Your task to perform on an android device: Go to Reddit.com Image 0: 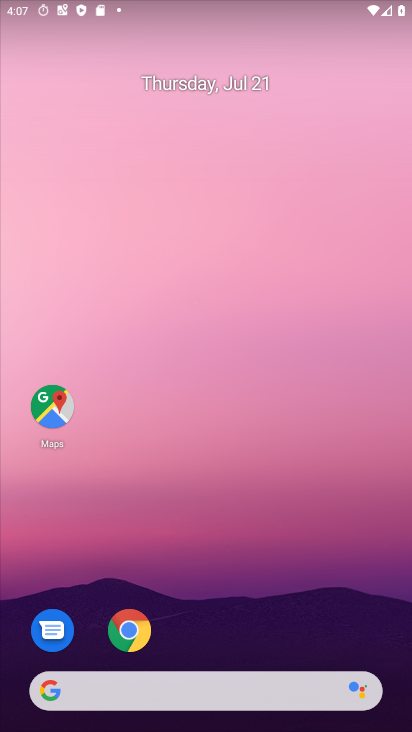
Step 0: click (131, 631)
Your task to perform on an android device: Go to Reddit.com Image 1: 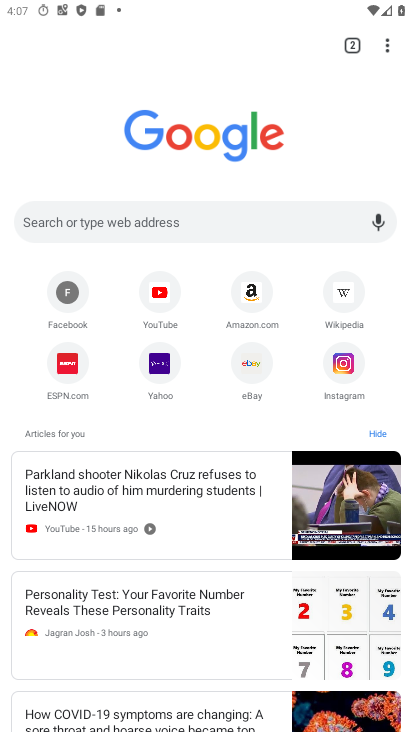
Step 1: click (214, 213)
Your task to perform on an android device: Go to Reddit.com Image 2: 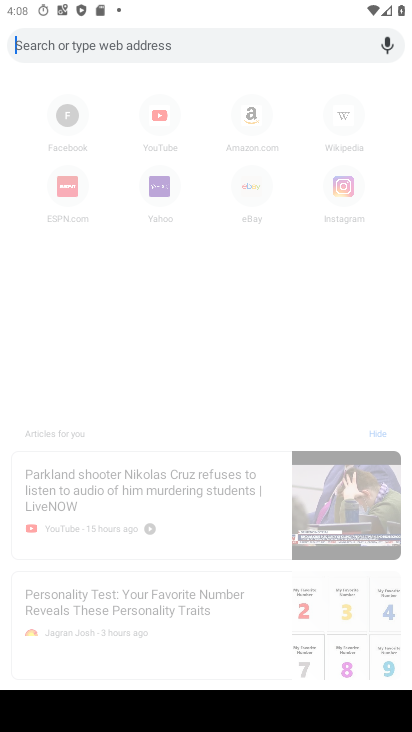
Step 2: type "Reddit.com"
Your task to perform on an android device: Go to Reddit.com Image 3: 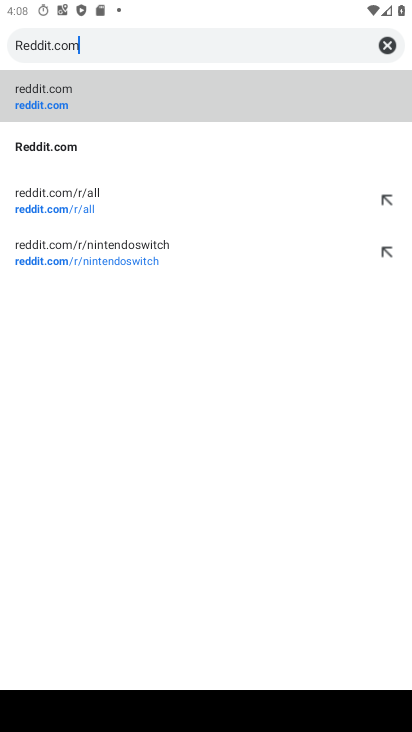
Step 3: click (57, 142)
Your task to perform on an android device: Go to Reddit.com Image 4: 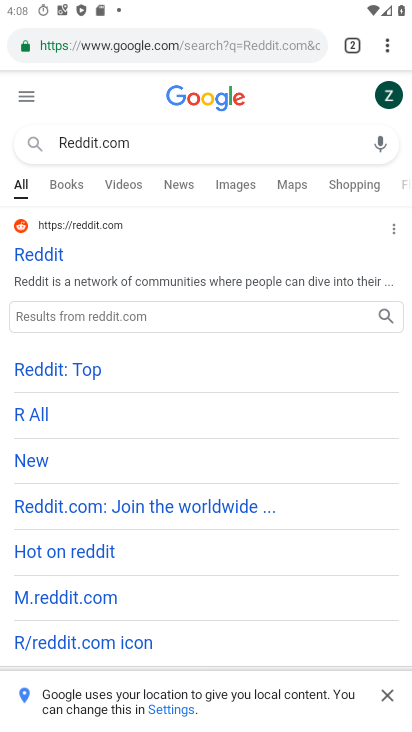
Step 4: click (44, 255)
Your task to perform on an android device: Go to Reddit.com Image 5: 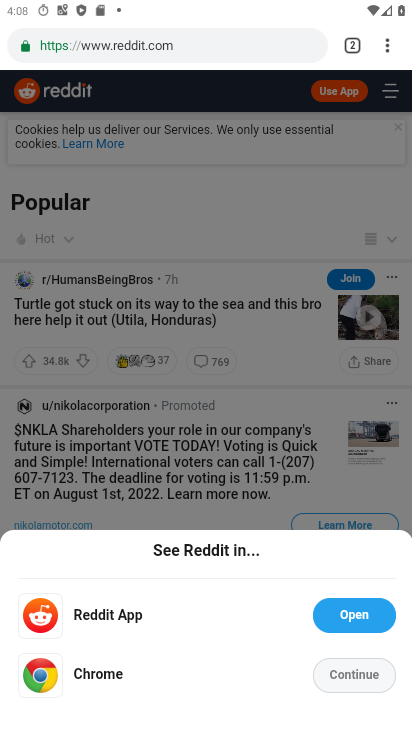
Step 5: click (359, 676)
Your task to perform on an android device: Go to Reddit.com Image 6: 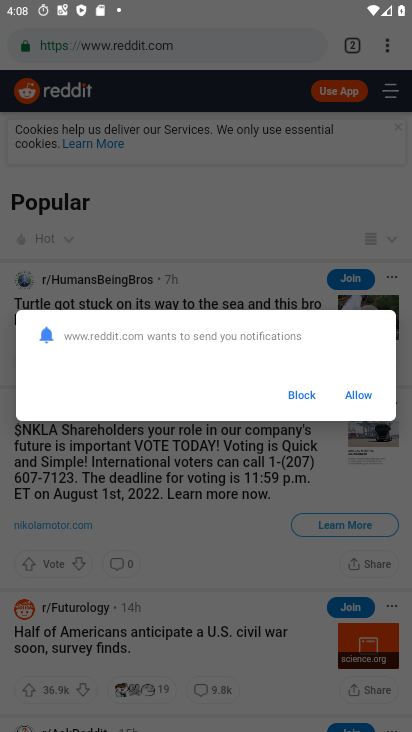
Step 6: click (358, 394)
Your task to perform on an android device: Go to Reddit.com Image 7: 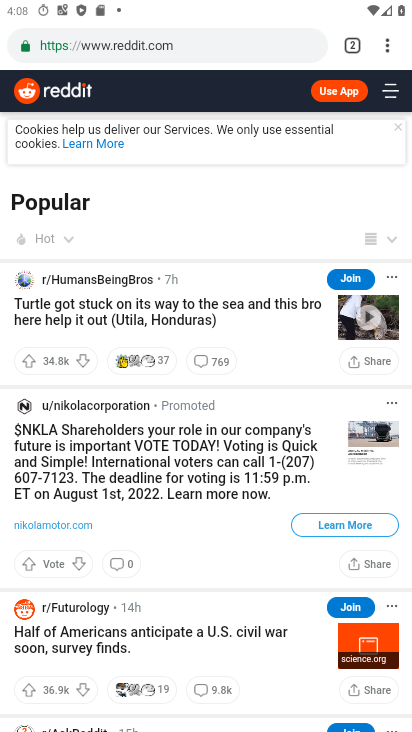
Step 7: task complete